Your task to perform on an android device: Go to calendar. Show me events next week Image 0: 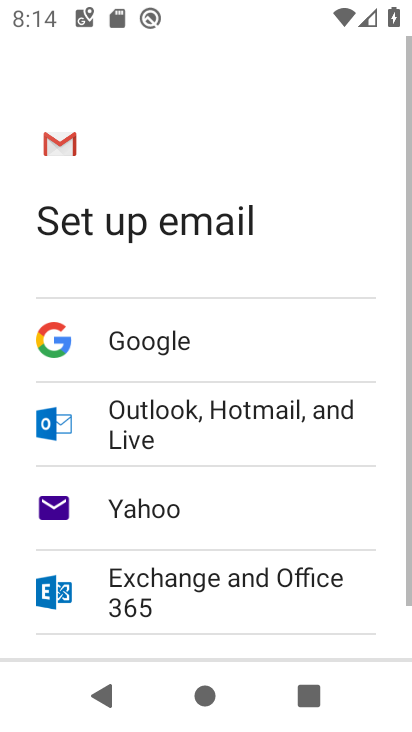
Step 0: press home button
Your task to perform on an android device: Go to calendar. Show me events next week Image 1: 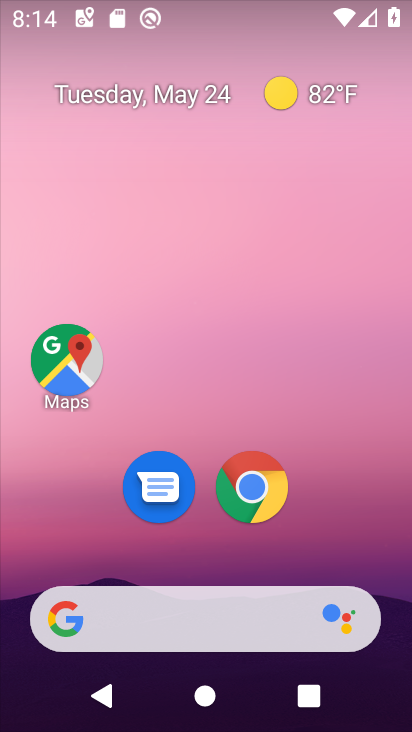
Step 1: drag from (334, 547) to (320, 67)
Your task to perform on an android device: Go to calendar. Show me events next week Image 2: 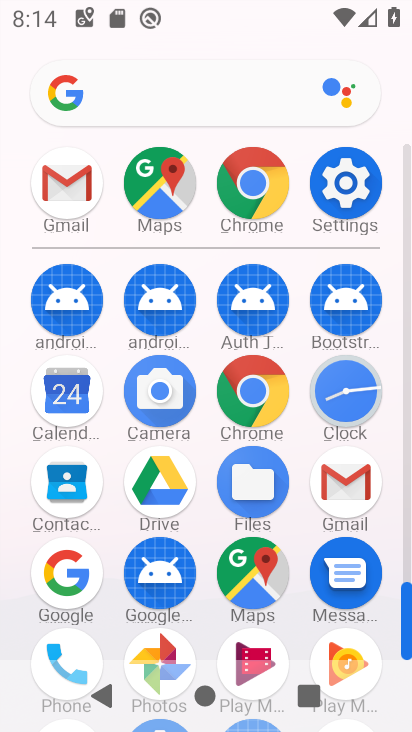
Step 2: click (49, 400)
Your task to perform on an android device: Go to calendar. Show me events next week Image 3: 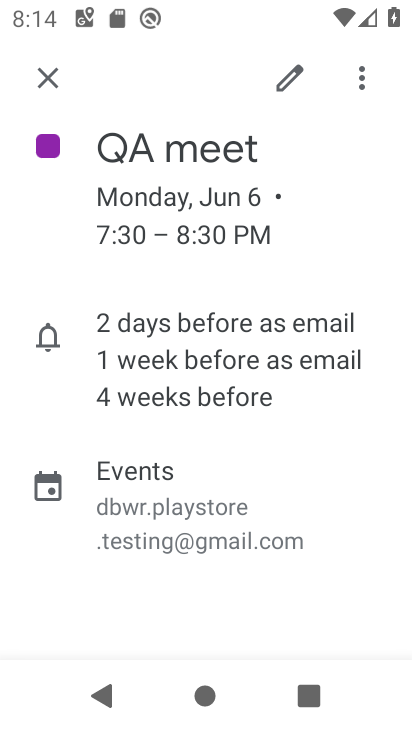
Step 3: click (44, 75)
Your task to perform on an android device: Go to calendar. Show me events next week Image 4: 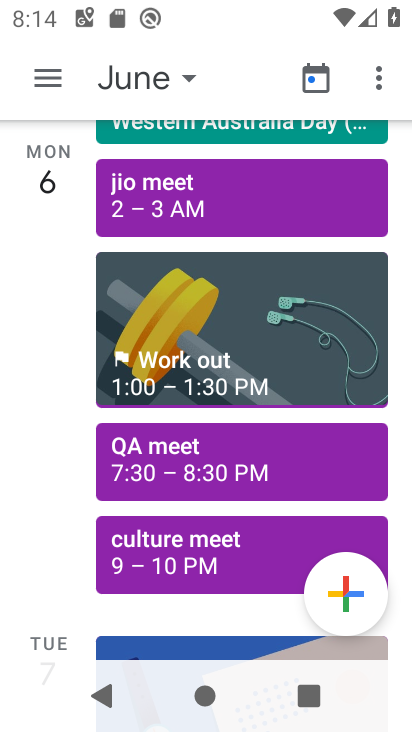
Step 4: click (161, 82)
Your task to perform on an android device: Go to calendar. Show me events next week Image 5: 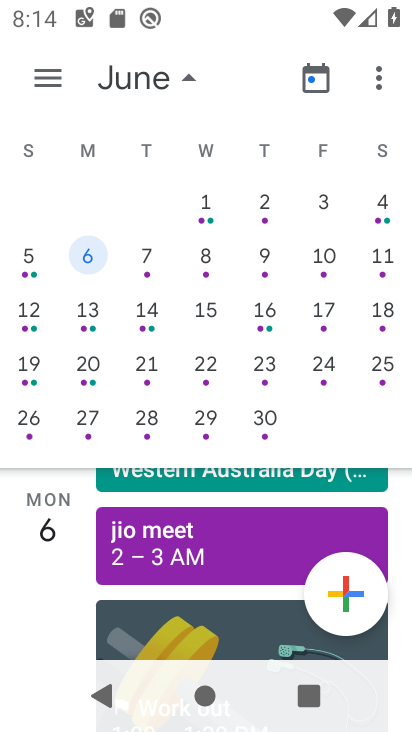
Step 5: drag from (99, 289) to (409, 298)
Your task to perform on an android device: Go to calendar. Show me events next week Image 6: 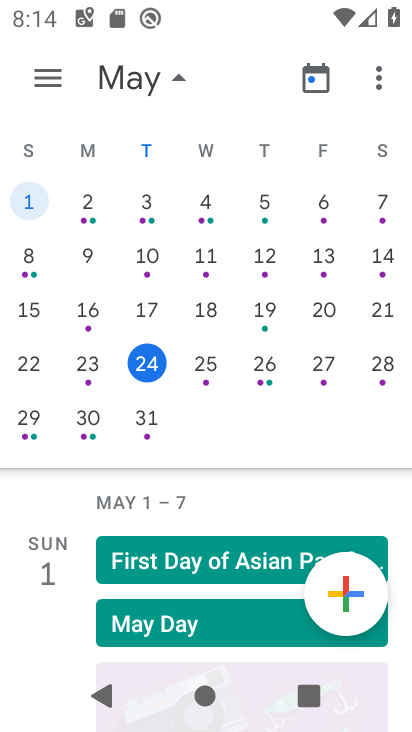
Step 6: click (22, 421)
Your task to perform on an android device: Go to calendar. Show me events next week Image 7: 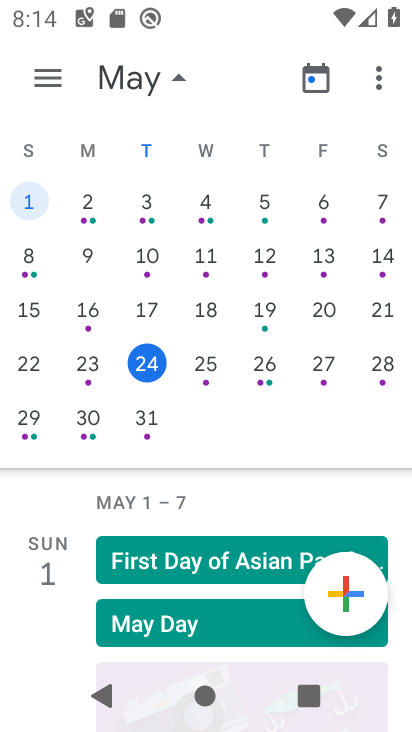
Step 7: click (40, 427)
Your task to perform on an android device: Go to calendar. Show me events next week Image 8: 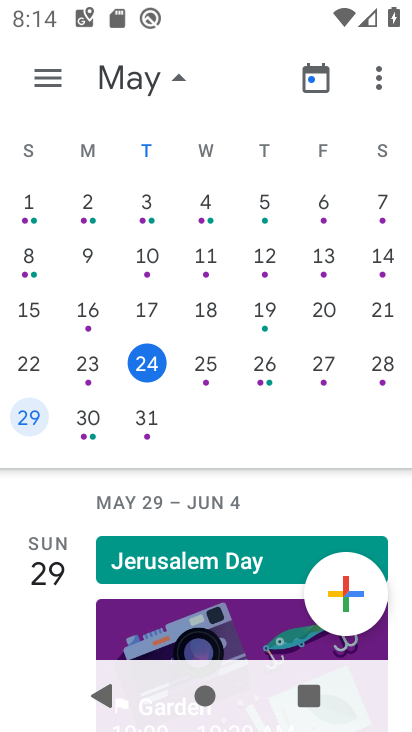
Step 8: task complete